Your task to perform on an android device: Go to Android settings Image 0: 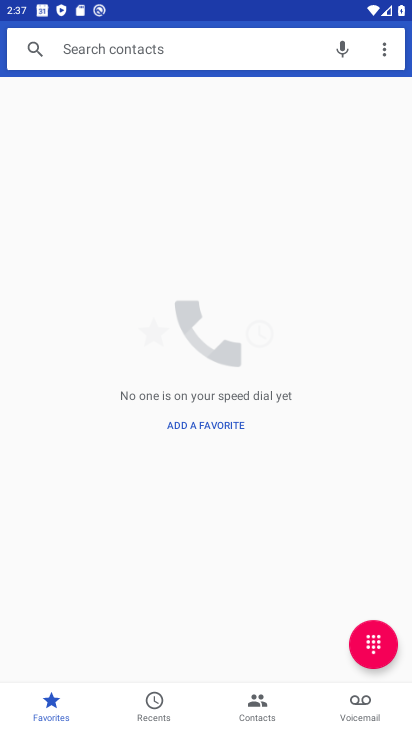
Step 0: press home button
Your task to perform on an android device: Go to Android settings Image 1: 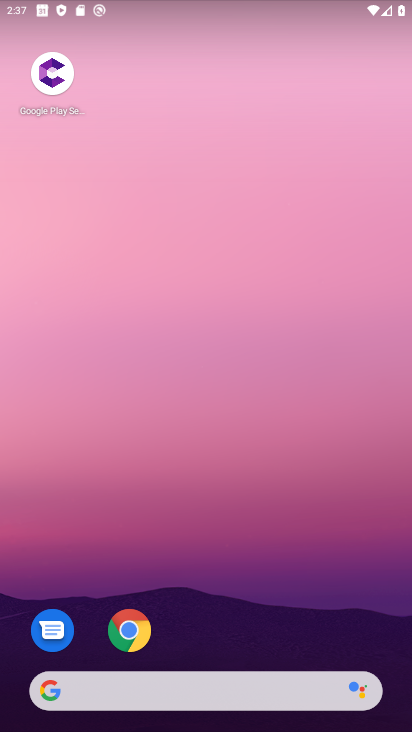
Step 1: drag from (191, 671) to (305, 46)
Your task to perform on an android device: Go to Android settings Image 2: 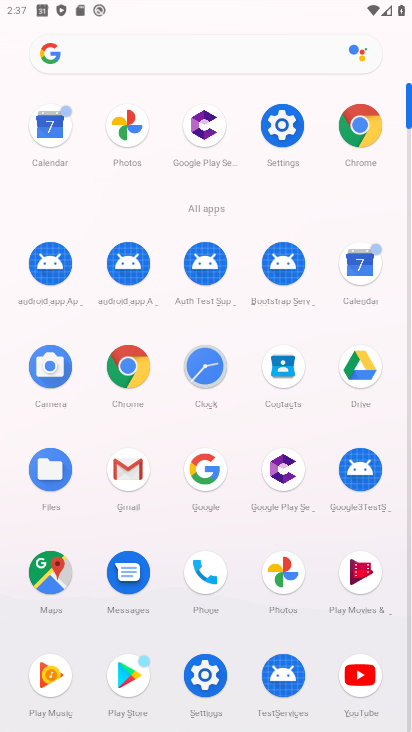
Step 2: click (285, 133)
Your task to perform on an android device: Go to Android settings Image 3: 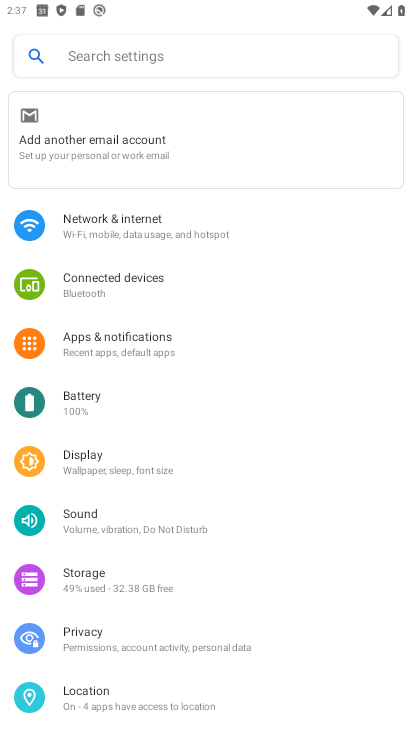
Step 3: task complete